Your task to perform on an android device: Go to Android settings Image 0: 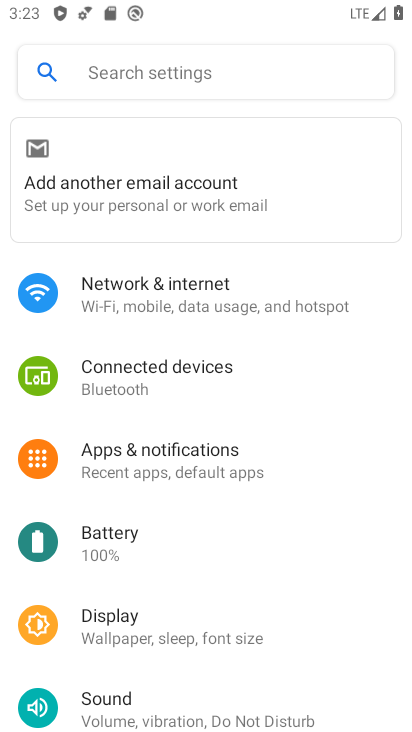
Step 0: task complete